Your task to perform on an android device: Open Google Chrome and click the shortcut for Amazon.com Image 0: 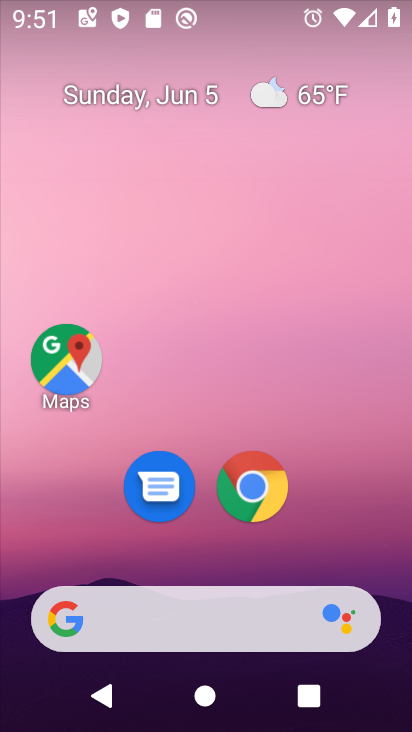
Step 0: press home button
Your task to perform on an android device: Open Google Chrome and click the shortcut for Amazon.com Image 1: 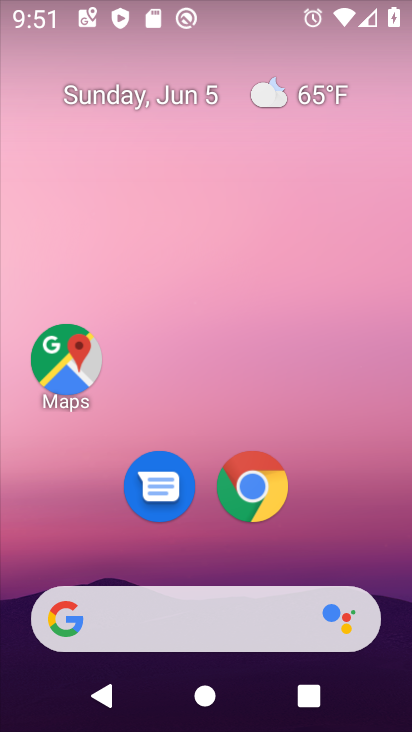
Step 1: drag from (380, 548) to (345, 119)
Your task to perform on an android device: Open Google Chrome and click the shortcut for Amazon.com Image 2: 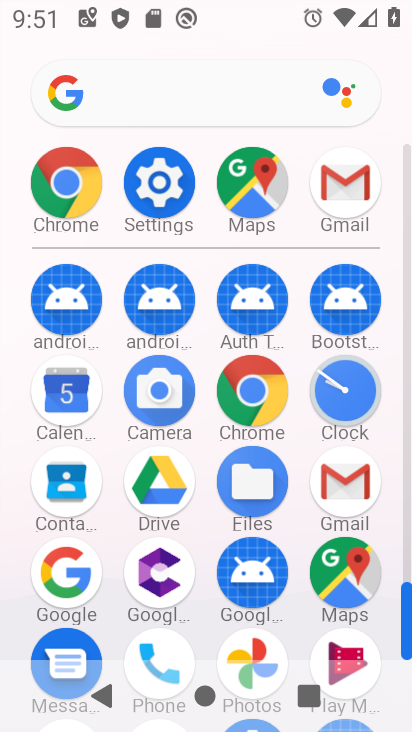
Step 2: click (254, 394)
Your task to perform on an android device: Open Google Chrome and click the shortcut for Amazon.com Image 3: 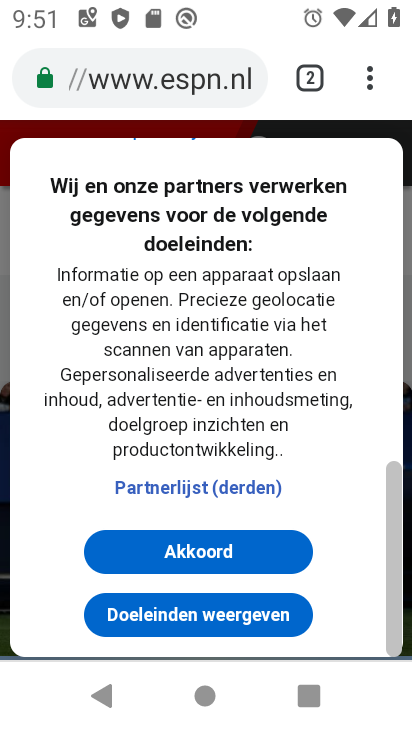
Step 3: click (309, 86)
Your task to perform on an android device: Open Google Chrome and click the shortcut for Amazon.com Image 4: 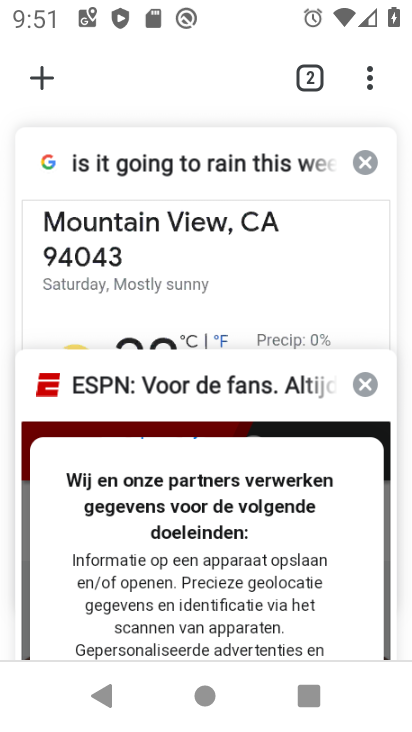
Step 4: click (30, 81)
Your task to perform on an android device: Open Google Chrome and click the shortcut for Amazon.com Image 5: 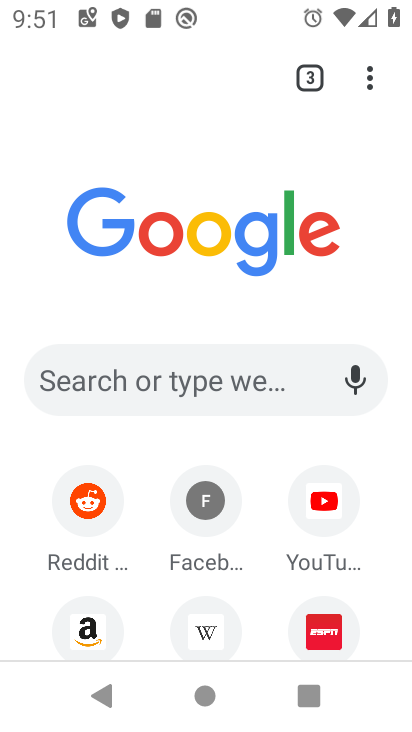
Step 5: click (110, 634)
Your task to perform on an android device: Open Google Chrome and click the shortcut for Amazon.com Image 6: 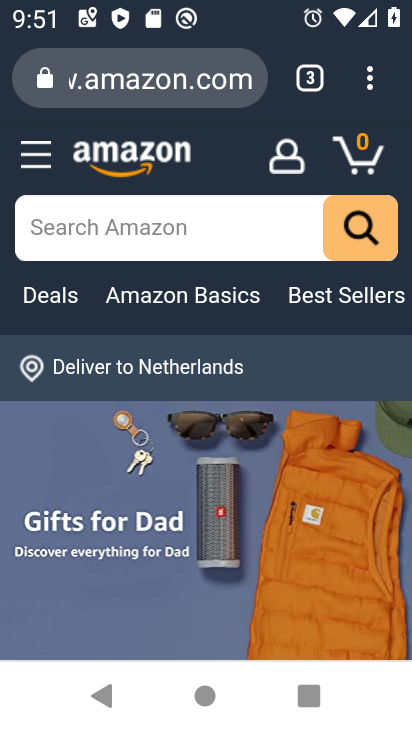
Step 6: task complete